Your task to perform on an android device: turn on sleep mode Image 0: 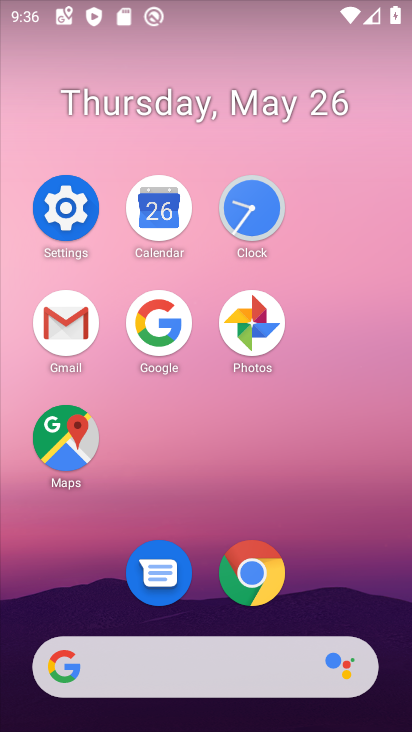
Step 0: click (86, 223)
Your task to perform on an android device: turn on sleep mode Image 1: 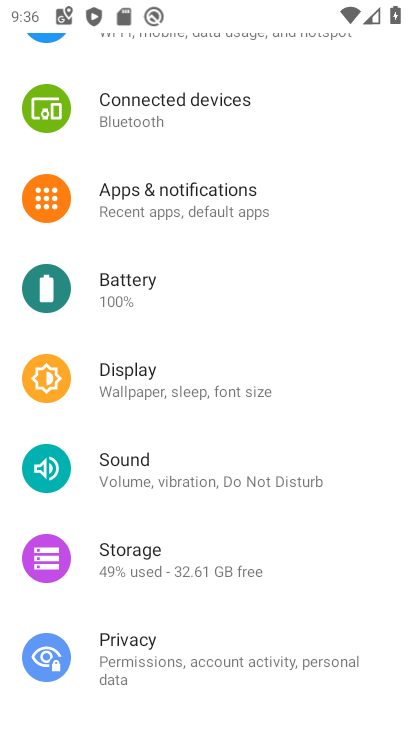
Step 1: click (261, 389)
Your task to perform on an android device: turn on sleep mode Image 2: 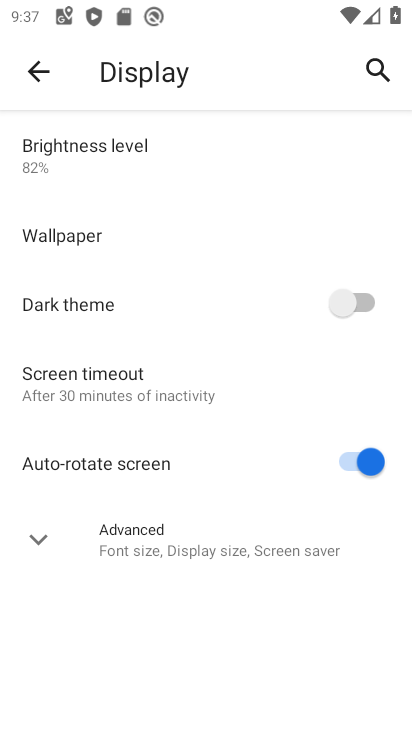
Step 2: click (261, 389)
Your task to perform on an android device: turn on sleep mode Image 3: 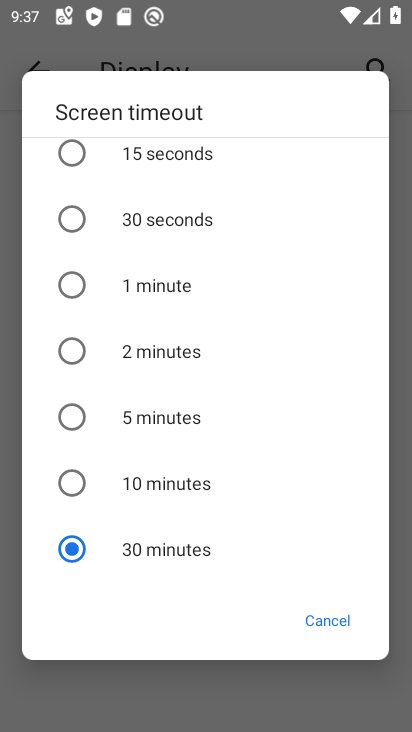
Step 3: task complete